Your task to perform on an android device: turn on sleep mode Image 0: 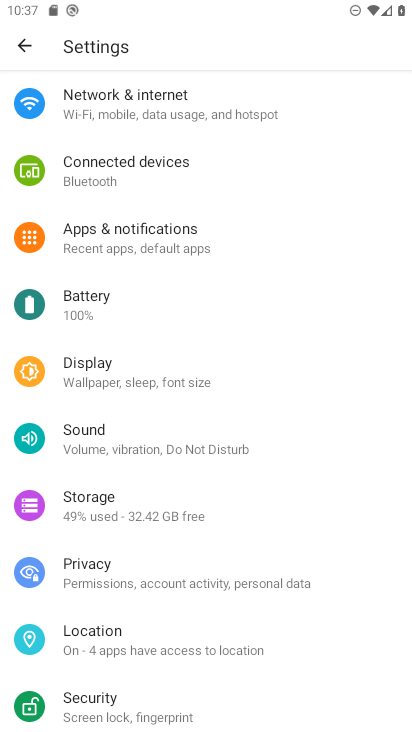
Step 0: click (98, 368)
Your task to perform on an android device: turn on sleep mode Image 1: 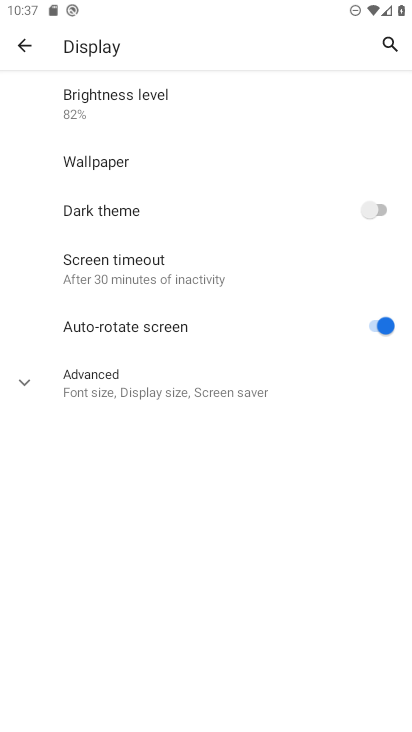
Step 1: click (17, 385)
Your task to perform on an android device: turn on sleep mode Image 2: 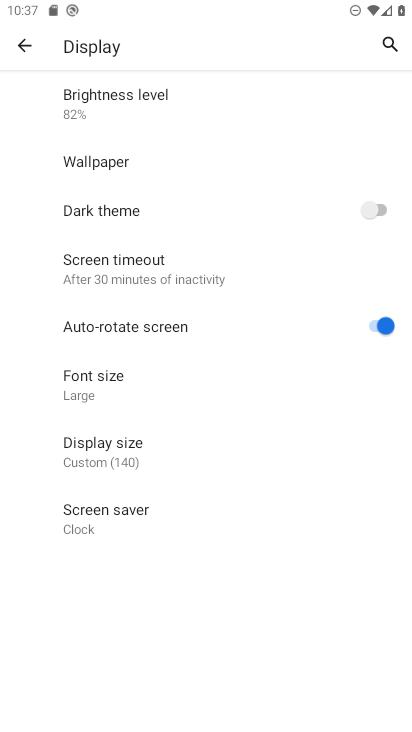
Step 2: task complete